Your task to perform on an android device: Show me productivity apps on the Play Store Image 0: 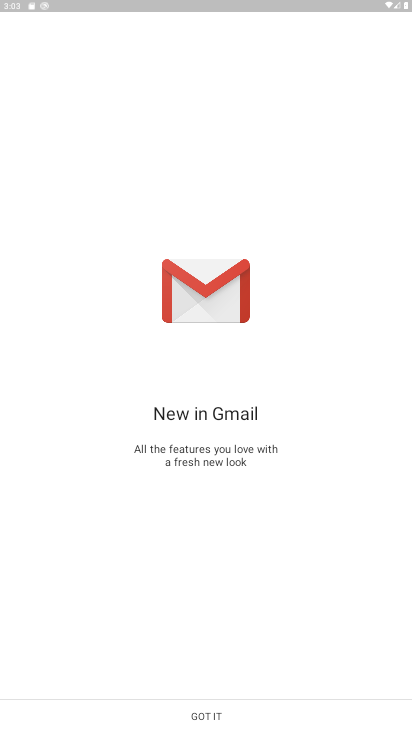
Step 0: press home button
Your task to perform on an android device: Show me productivity apps on the Play Store Image 1: 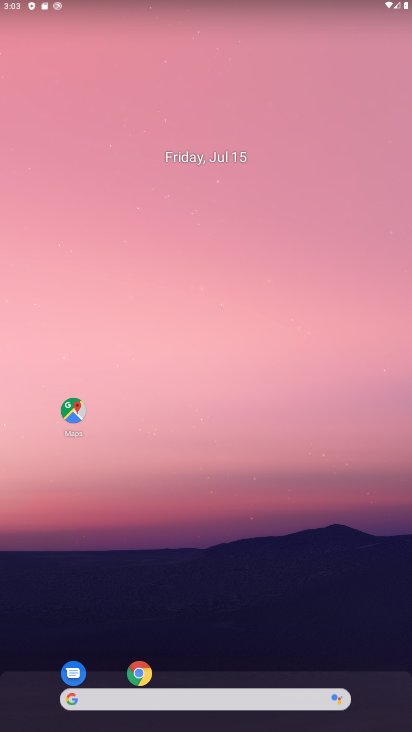
Step 1: drag from (184, 484) to (228, 266)
Your task to perform on an android device: Show me productivity apps on the Play Store Image 2: 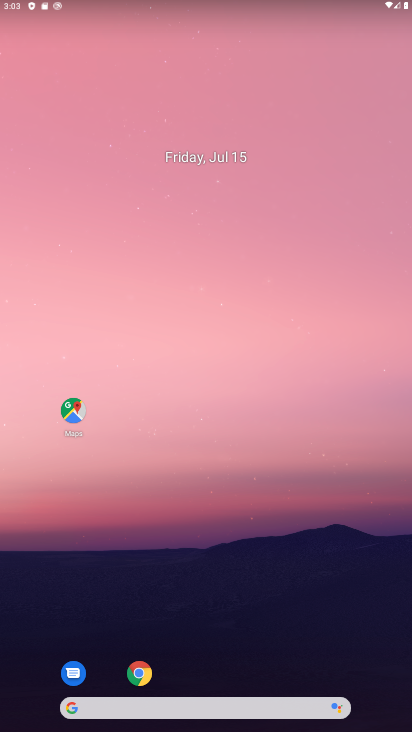
Step 2: drag from (214, 690) to (278, 241)
Your task to perform on an android device: Show me productivity apps on the Play Store Image 3: 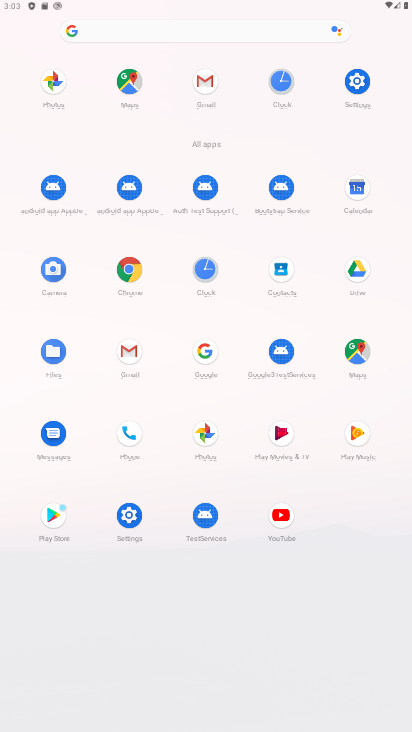
Step 3: click (48, 527)
Your task to perform on an android device: Show me productivity apps on the Play Store Image 4: 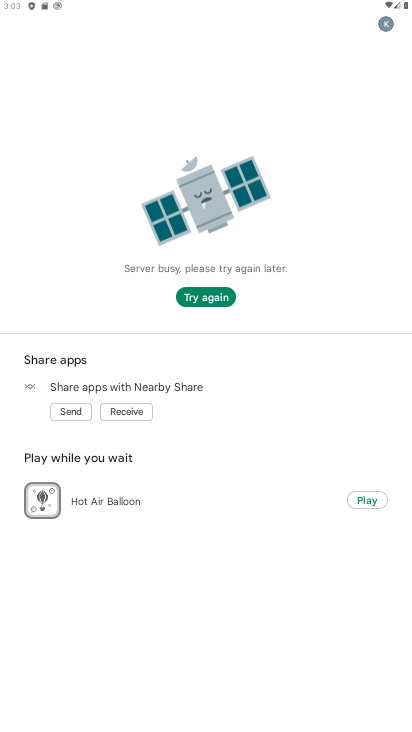
Step 4: task complete